Your task to perform on an android device: Open Google Chrome and open the bookmarks view Image 0: 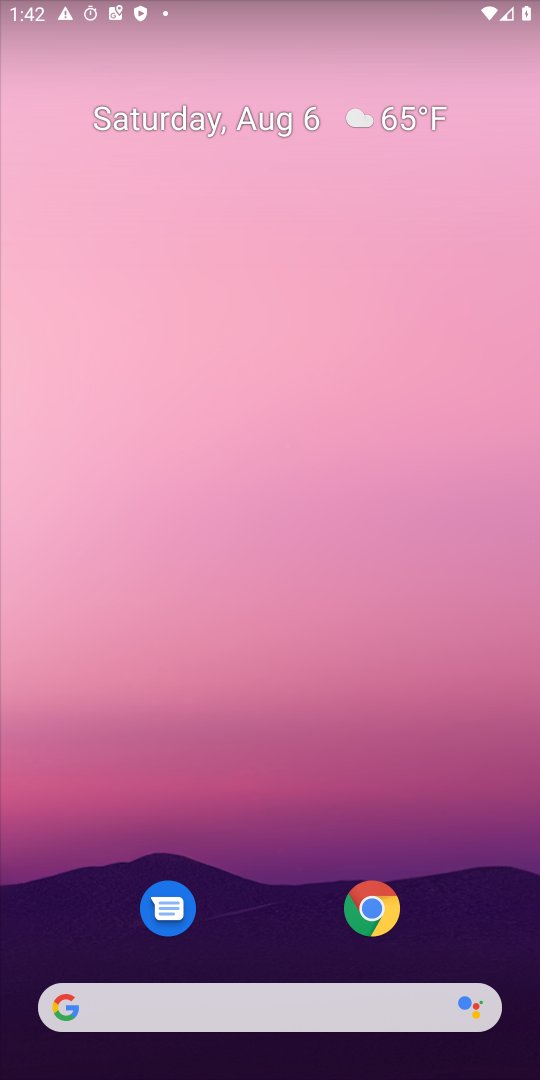
Step 0: click (354, 920)
Your task to perform on an android device: Open Google Chrome and open the bookmarks view Image 1: 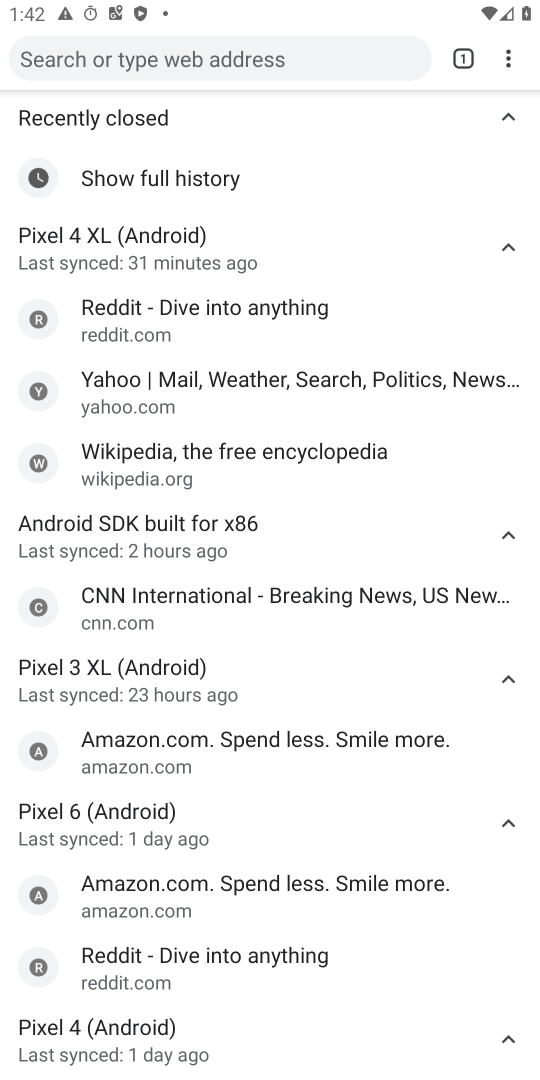
Step 1: click (494, 55)
Your task to perform on an android device: Open Google Chrome and open the bookmarks view Image 2: 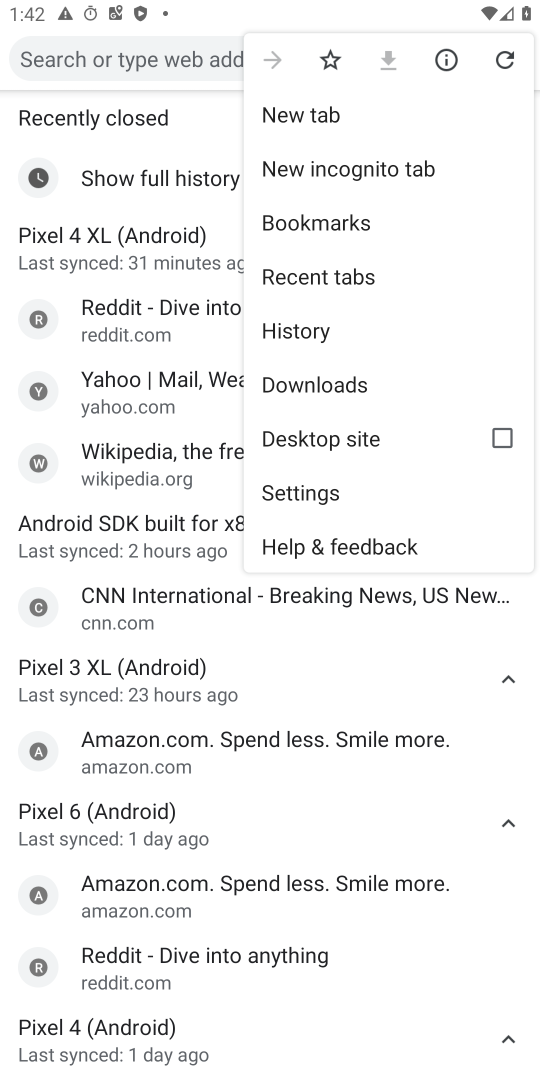
Step 2: click (311, 222)
Your task to perform on an android device: Open Google Chrome and open the bookmarks view Image 3: 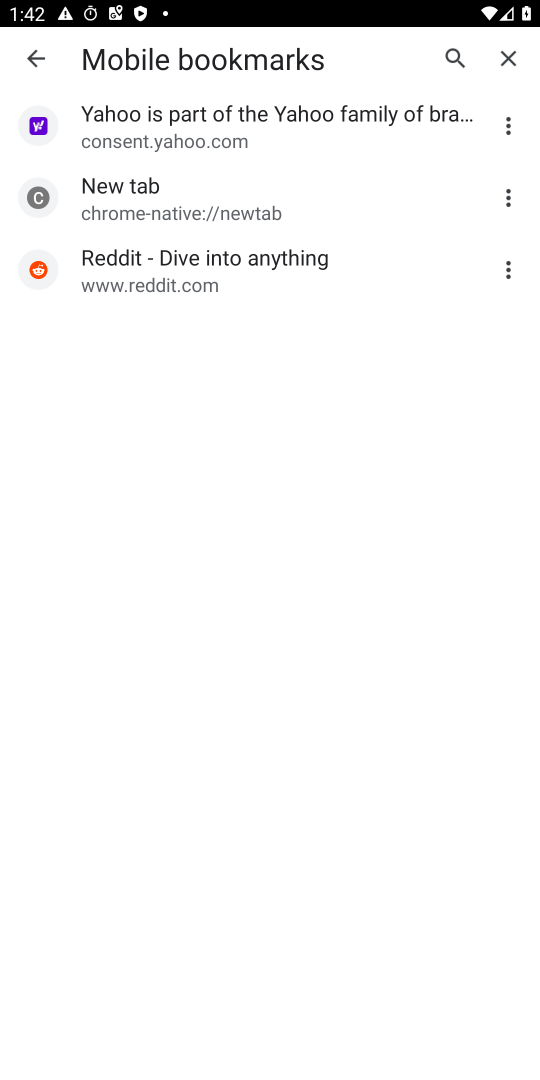
Step 3: task complete